Your task to perform on an android device: Do I have any events tomorrow? Image 0: 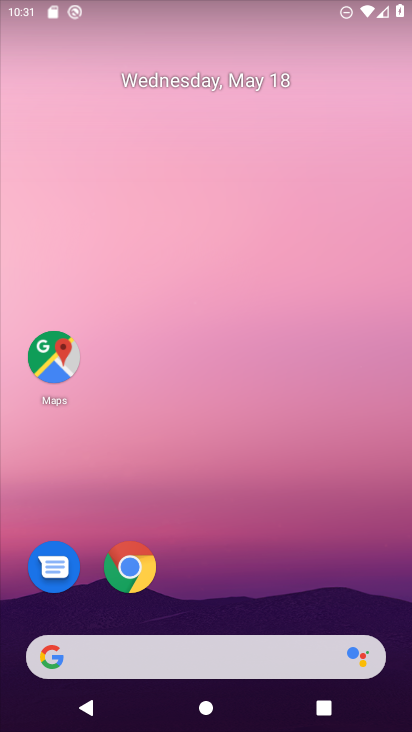
Step 0: drag from (226, 662) to (253, 181)
Your task to perform on an android device: Do I have any events tomorrow? Image 1: 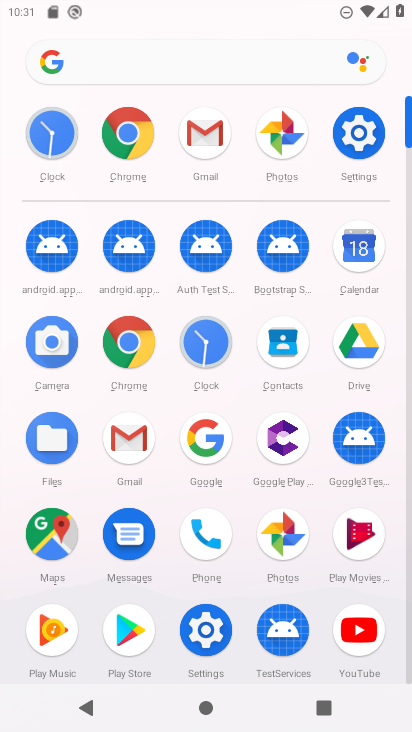
Step 1: click (350, 251)
Your task to perform on an android device: Do I have any events tomorrow? Image 2: 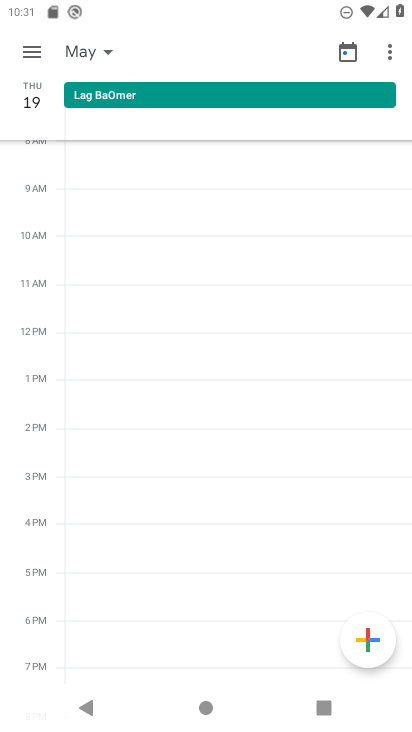
Step 2: click (19, 65)
Your task to perform on an android device: Do I have any events tomorrow? Image 3: 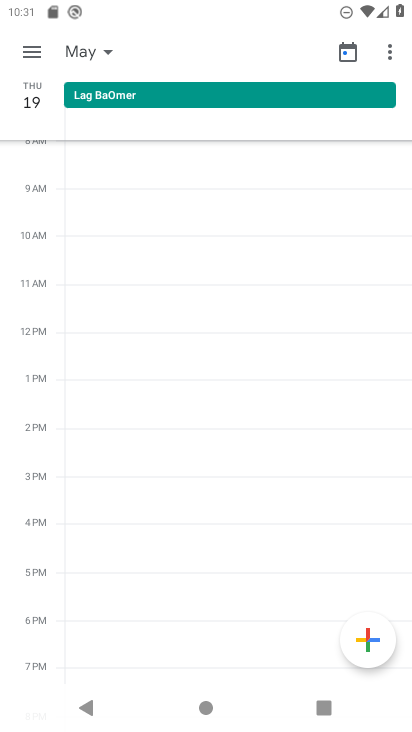
Step 3: click (24, 49)
Your task to perform on an android device: Do I have any events tomorrow? Image 4: 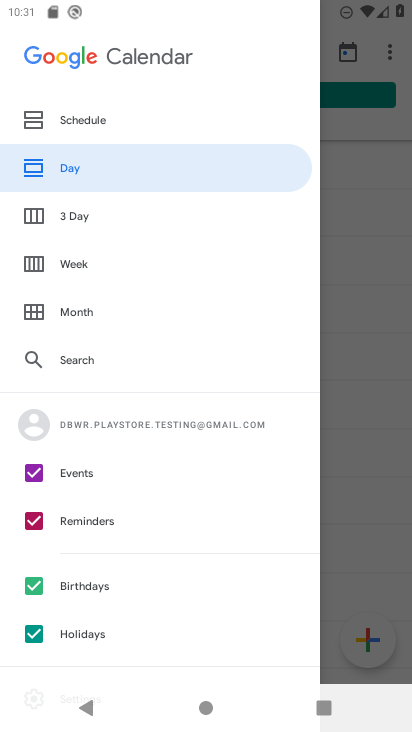
Step 4: click (67, 309)
Your task to perform on an android device: Do I have any events tomorrow? Image 5: 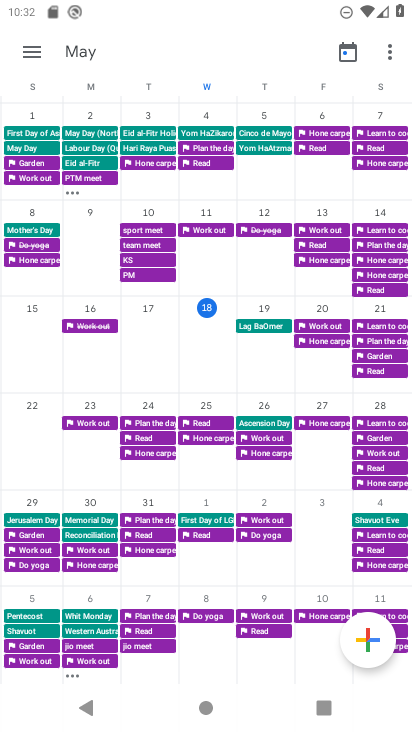
Step 5: click (262, 326)
Your task to perform on an android device: Do I have any events tomorrow? Image 6: 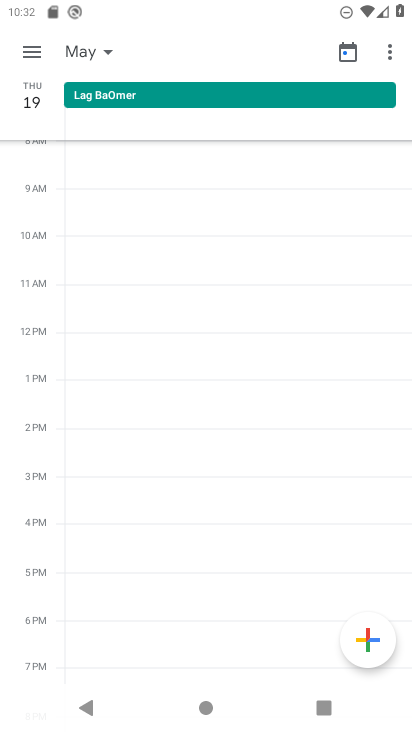
Step 6: task complete